Your task to perform on an android device: delete the emails in spam in the gmail app Image 0: 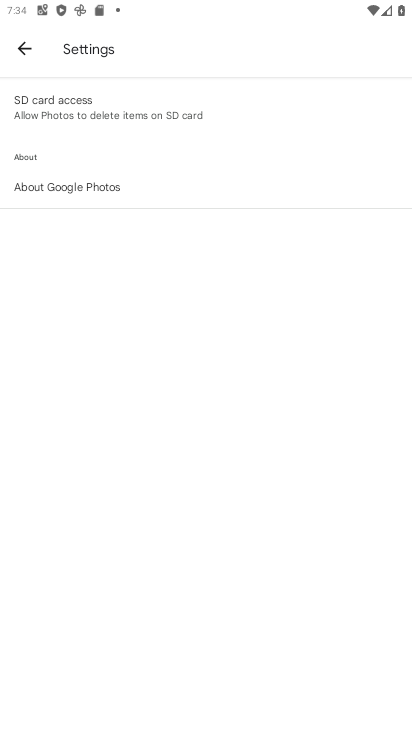
Step 0: press home button
Your task to perform on an android device: delete the emails in spam in the gmail app Image 1: 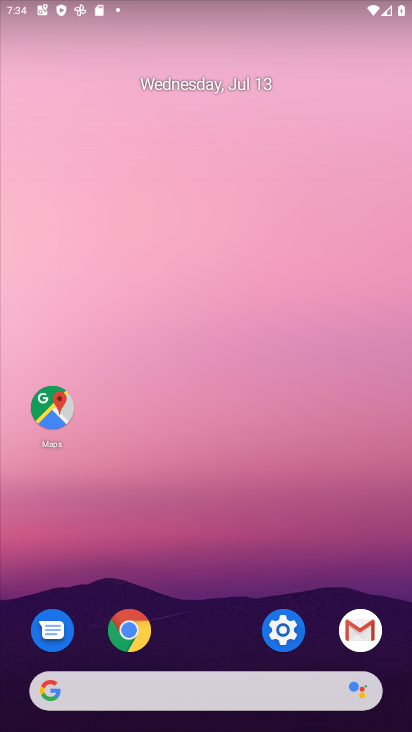
Step 1: click (350, 635)
Your task to perform on an android device: delete the emails in spam in the gmail app Image 2: 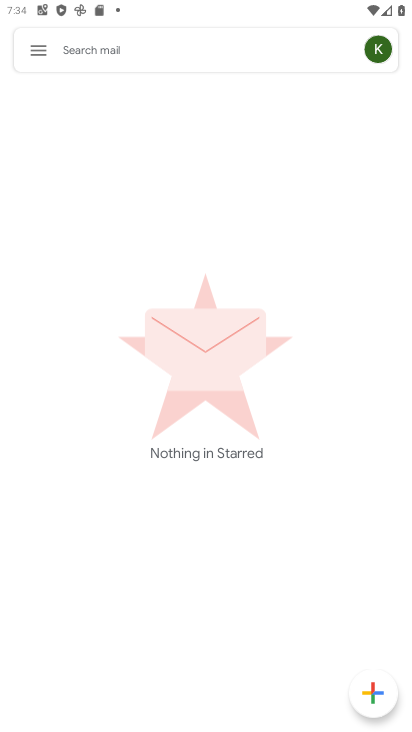
Step 2: click (41, 55)
Your task to perform on an android device: delete the emails in spam in the gmail app Image 3: 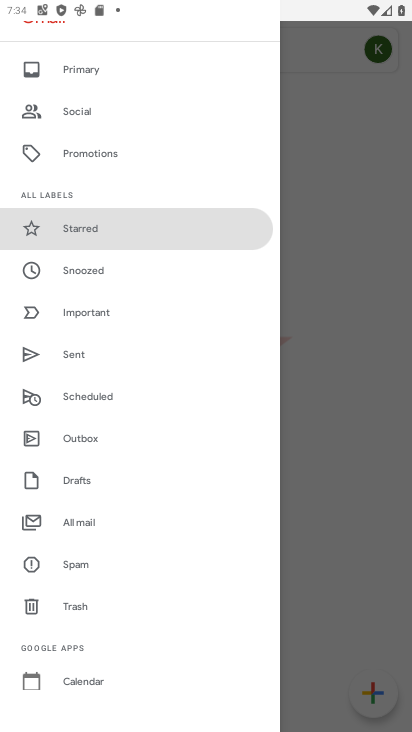
Step 3: click (75, 567)
Your task to perform on an android device: delete the emails in spam in the gmail app Image 4: 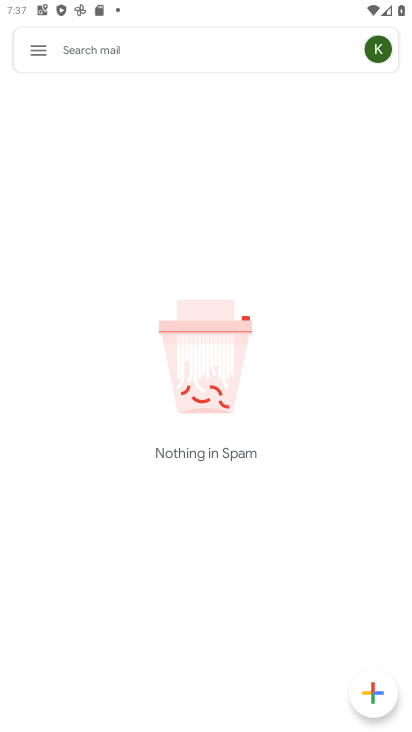
Step 4: task complete